Your task to perform on an android device: toggle translation in the chrome app Image 0: 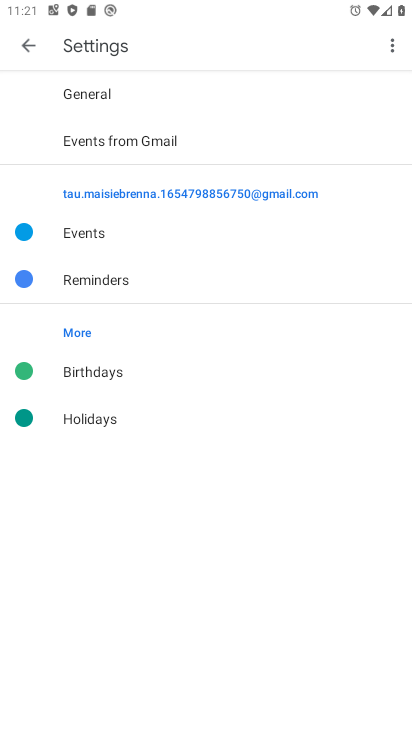
Step 0: click (21, 52)
Your task to perform on an android device: toggle translation in the chrome app Image 1: 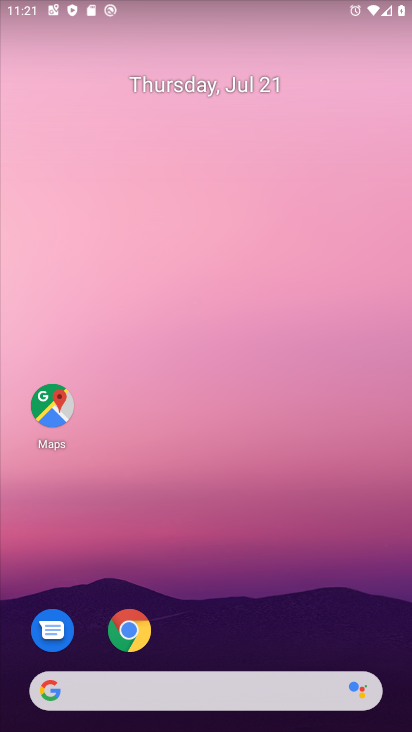
Step 1: drag from (211, 641) to (194, 93)
Your task to perform on an android device: toggle translation in the chrome app Image 2: 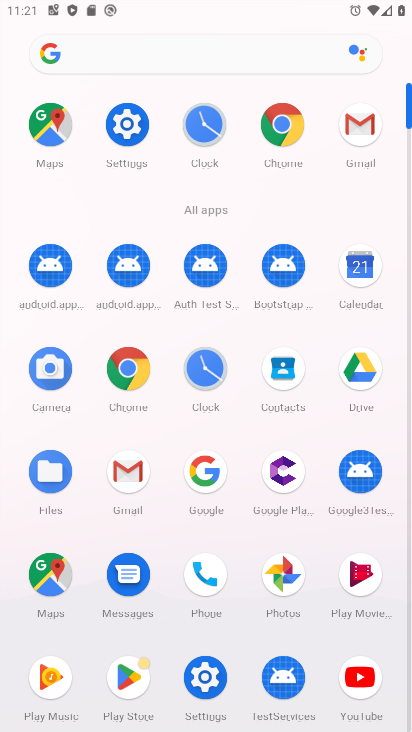
Step 2: click (127, 363)
Your task to perform on an android device: toggle translation in the chrome app Image 3: 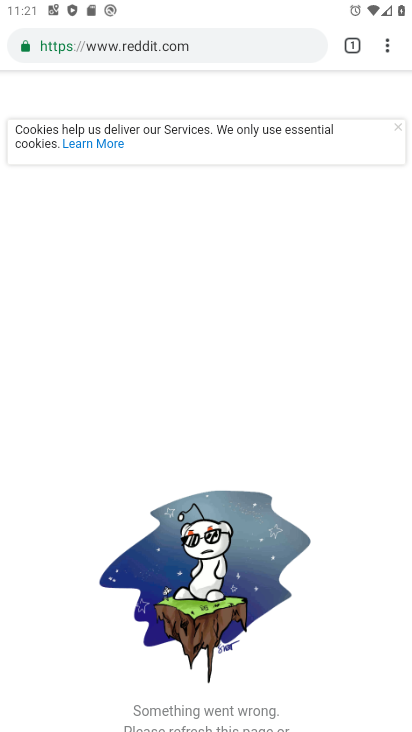
Step 3: drag from (387, 42) to (226, 609)
Your task to perform on an android device: toggle translation in the chrome app Image 4: 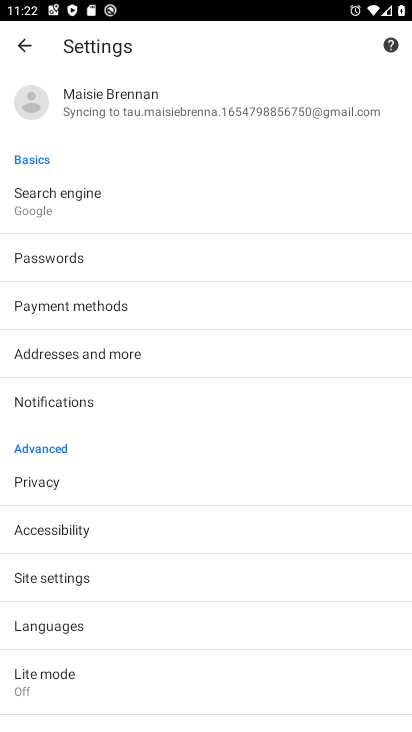
Step 4: click (91, 619)
Your task to perform on an android device: toggle translation in the chrome app Image 5: 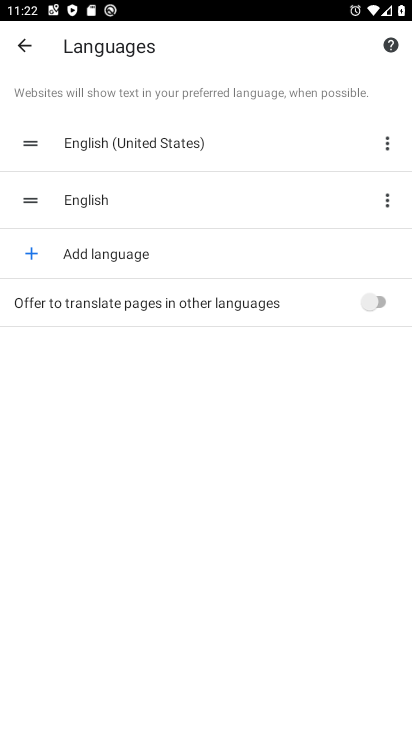
Step 5: task complete